Your task to perform on an android device: See recent photos Image 0: 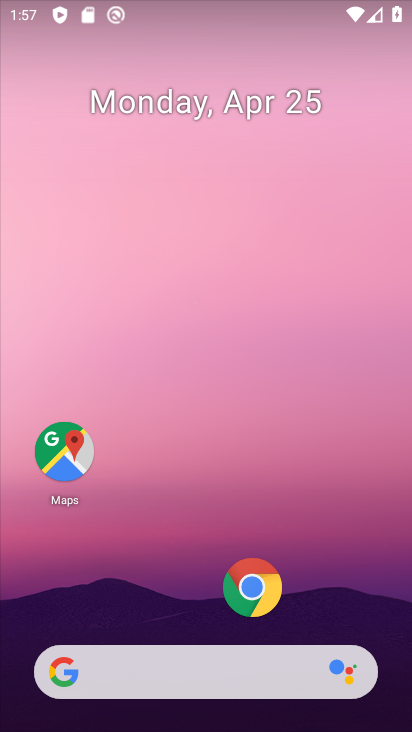
Step 0: drag from (197, 621) to (202, 46)
Your task to perform on an android device: See recent photos Image 1: 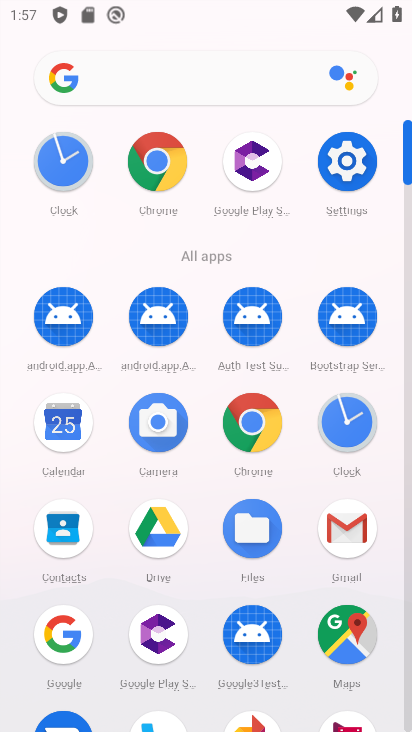
Step 1: drag from (206, 601) to (204, 169)
Your task to perform on an android device: See recent photos Image 2: 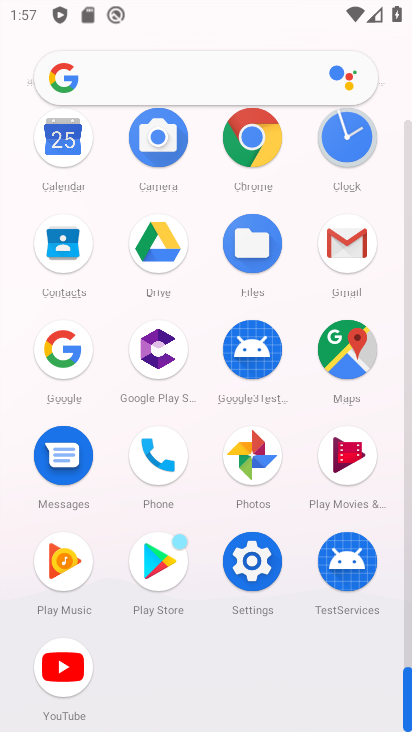
Step 2: click (252, 454)
Your task to perform on an android device: See recent photos Image 3: 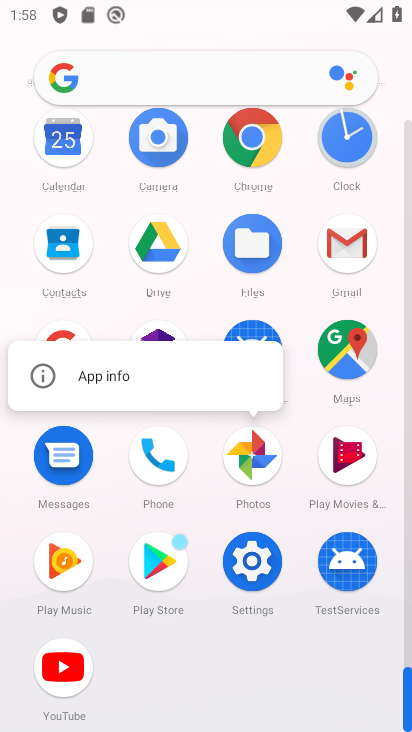
Step 3: click (279, 677)
Your task to perform on an android device: See recent photos Image 4: 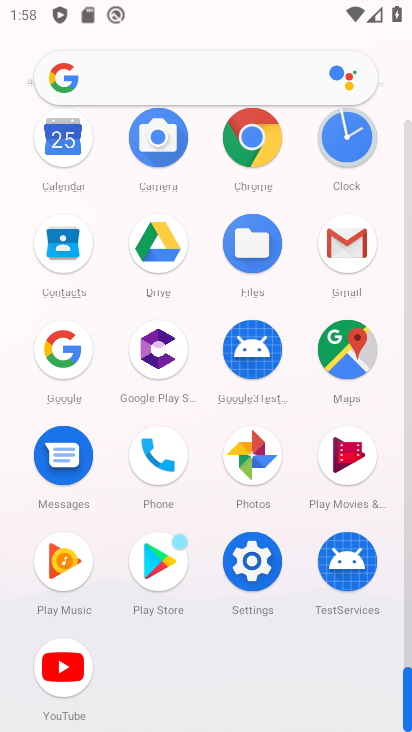
Step 4: click (253, 463)
Your task to perform on an android device: See recent photos Image 5: 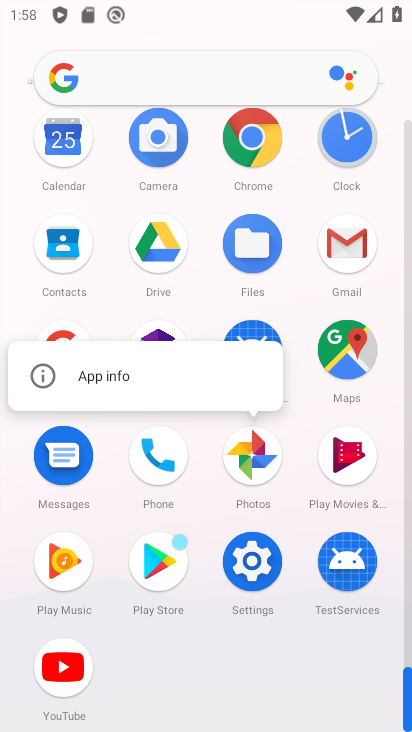
Step 5: click (260, 474)
Your task to perform on an android device: See recent photos Image 6: 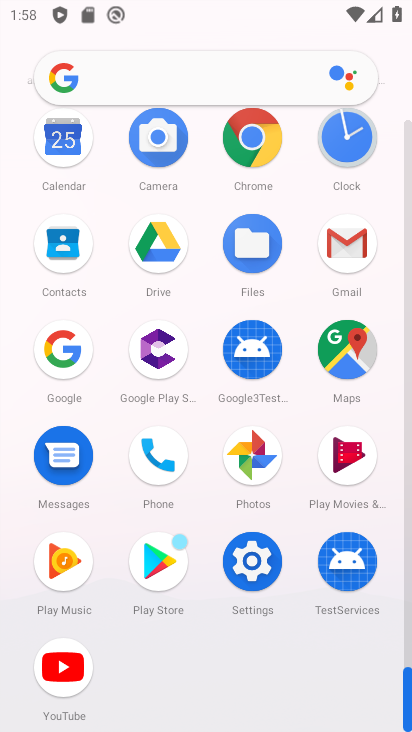
Step 6: click (236, 473)
Your task to perform on an android device: See recent photos Image 7: 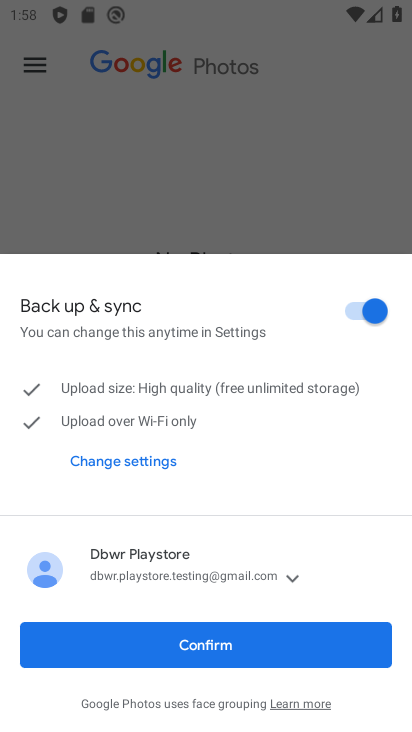
Step 7: click (221, 649)
Your task to perform on an android device: See recent photos Image 8: 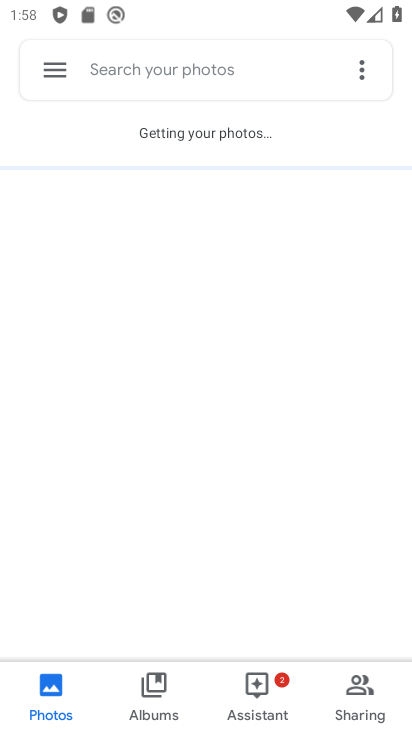
Step 8: task complete